Your task to perform on an android device: turn off sleep mode Image 0: 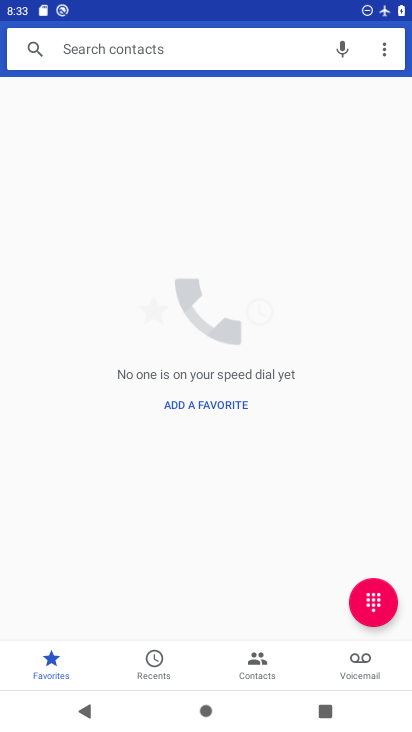
Step 0: press home button
Your task to perform on an android device: turn off sleep mode Image 1: 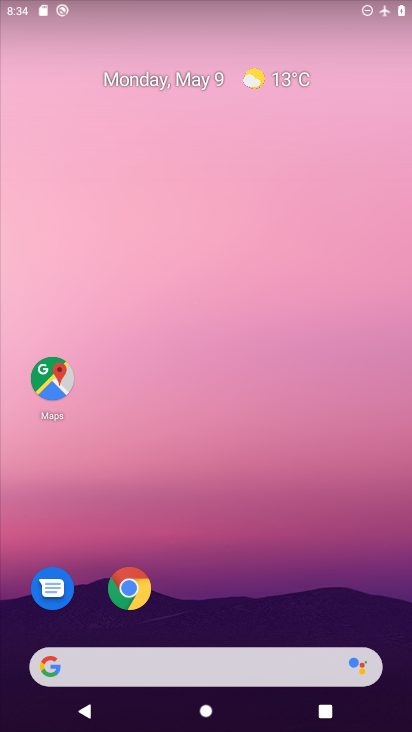
Step 1: drag from (299, 579) to (283, 402)
Your task to perform on an android device: turn off sleep mode Image 2: 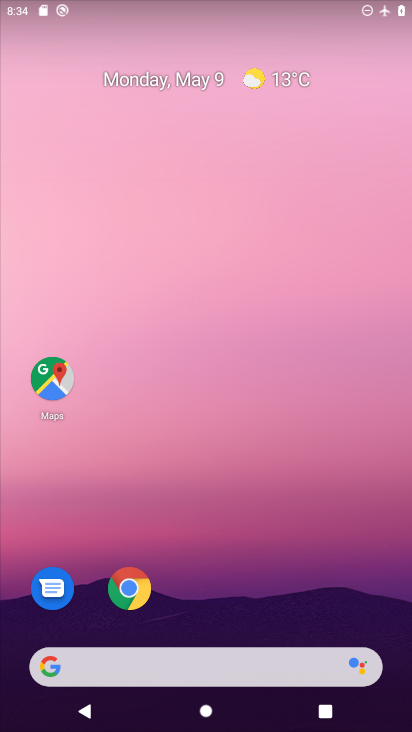
Step 2: drag from (273, 619) to (293, 0)
Your task to perform on an android device: turn off sleep mode Image 3: 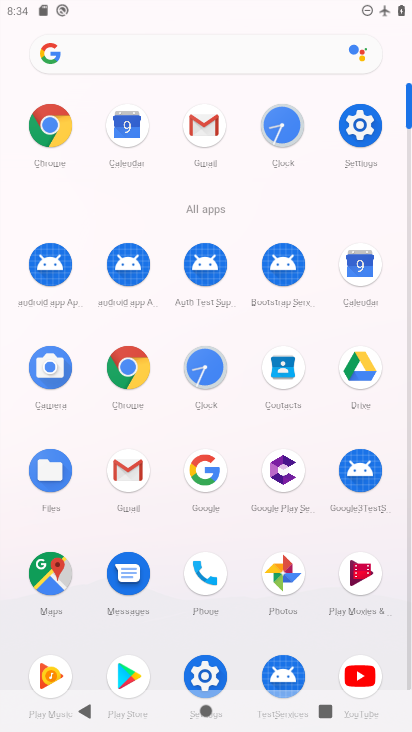
Step 3: click (361, 157)
Your task to perform on an android device: turn off sleep mode Image 4: 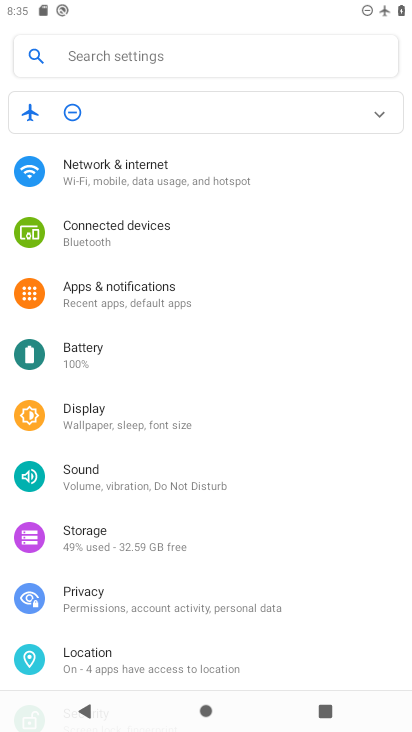
Step 4: click (202, 418)
Your task to perform on an android device: turn off sleep mode Image 5: 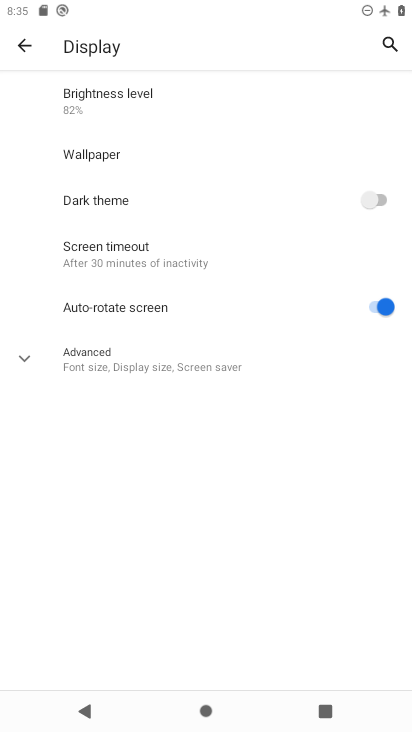
Step 5: click (155, 268)
Your task to perform on an android device: turn off sleep mode Image 6: 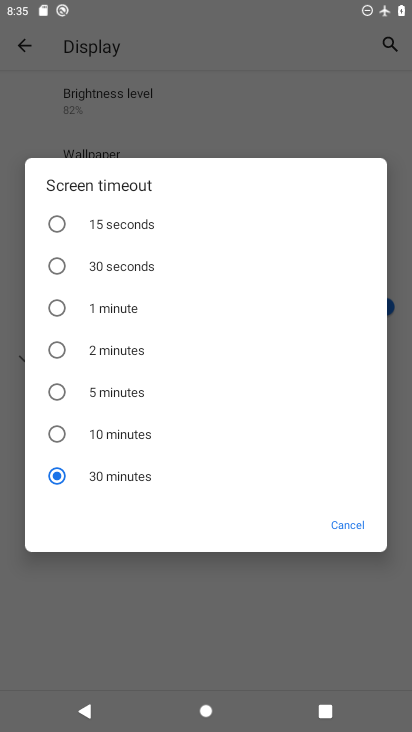
Step 6: click (151, 228)
Your task to perform on an android device: turn off sleep mode Image 7: 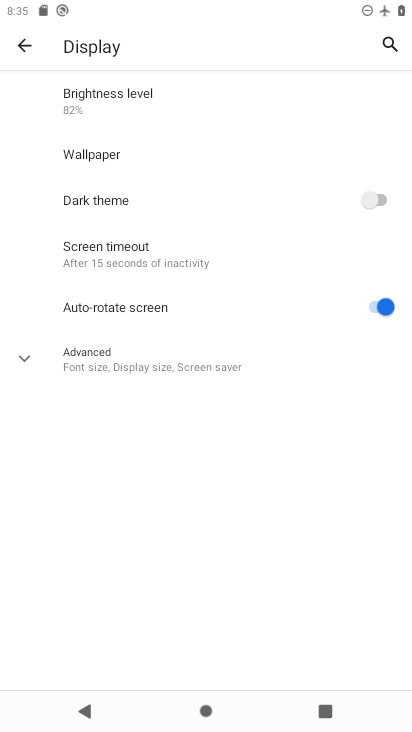
Step 7: task complete